Your task to perform on an android device: Open Yahoo.com Image 0: 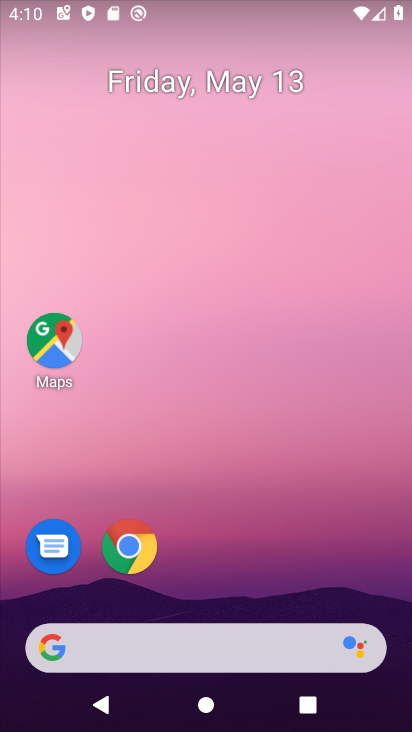
Step 0: drag from (244, 214) to (336, 6)
Your task to perform on an android device: Open Yahoo.com Image 1: 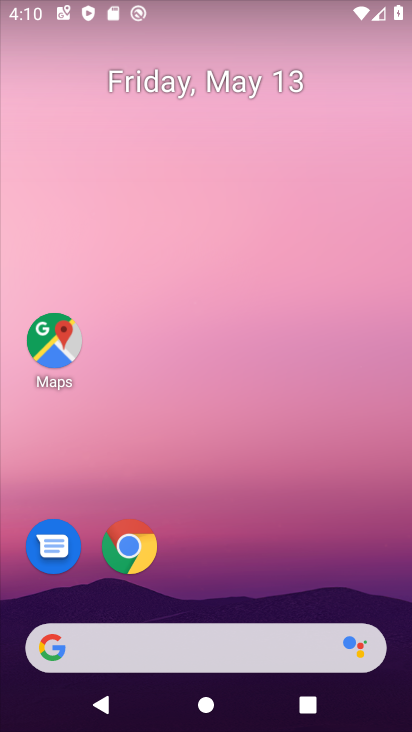
Step 1: click (132, 553)
Your task to perform on an android device: Open Yahoo.com Image 2: 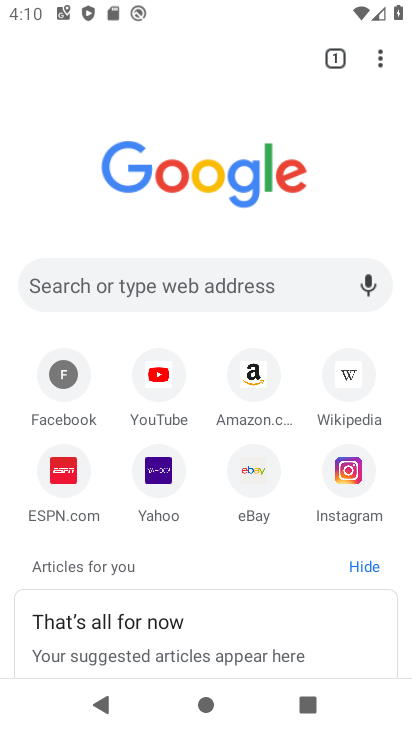
Step 2: click (161, 487)
Your task to perform on an android device: Open Yahoo.com Image 3: 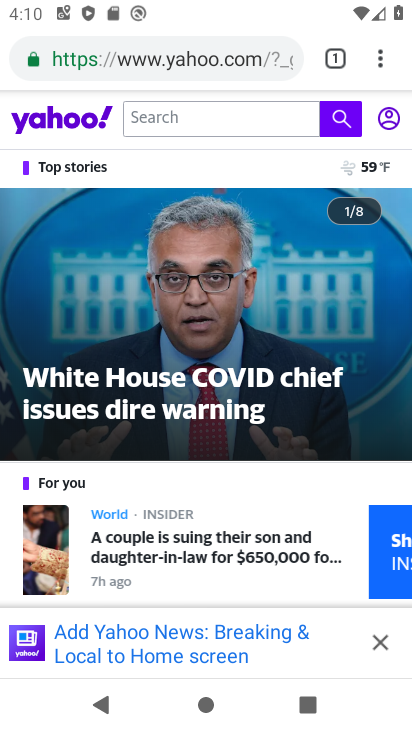
Step 3: task complete